Your task to perform on an android device: Do I have any events this weekend? Image 0: 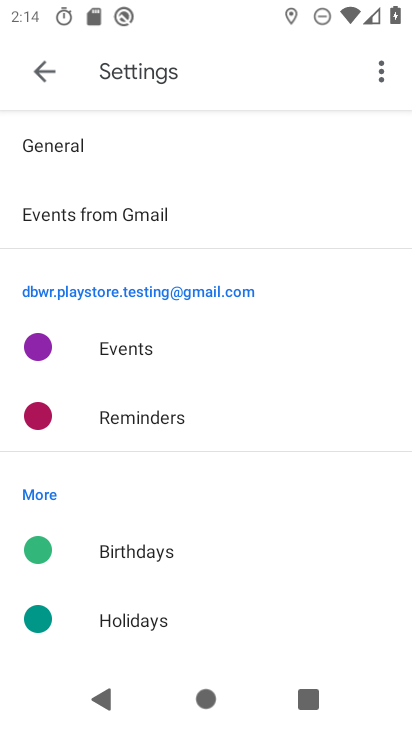
Step 0: press home button
Your task to perform on an android device: Do I have any events this weekend? Image 1: 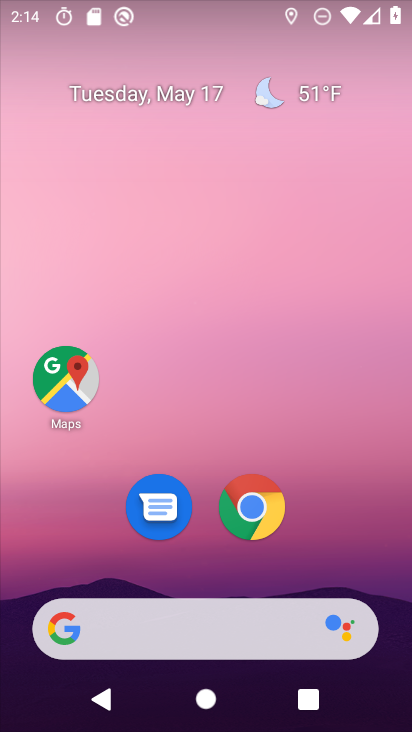
Step 1: drag from (208, 553) to (210, 133)
Your task to perform on an android device: Do I have any events this weekend? Image 2: 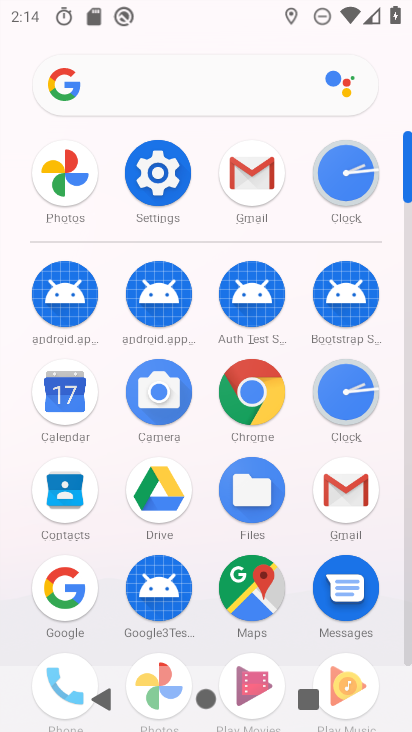
Step 2: click (63, 393)
Your task to perform on an android device: Do I have any events this weekend? Image 3: 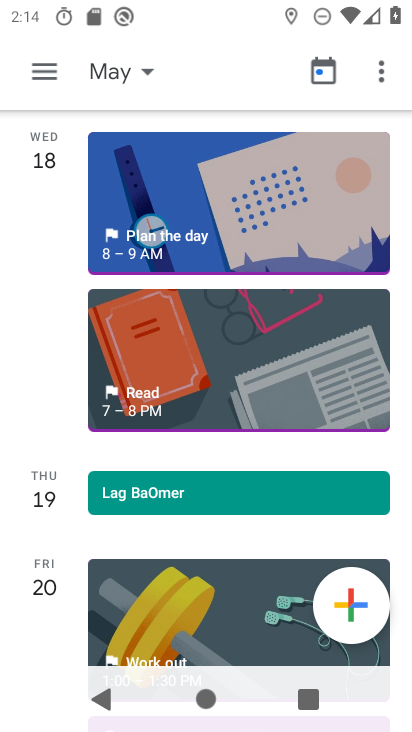
Step 3: click (136, 76)
Your task to perform on an android device: Do I have any events this weekend? Image 4: 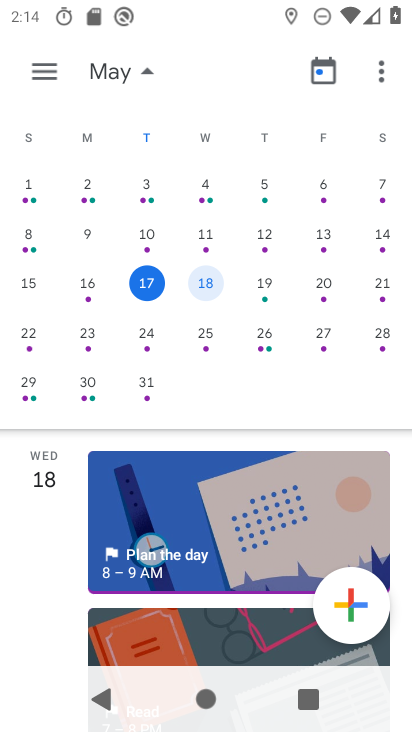
Step 4: click (322, 284)
Your task to perform on an android device: Do I have any events this weekend? Image 5: 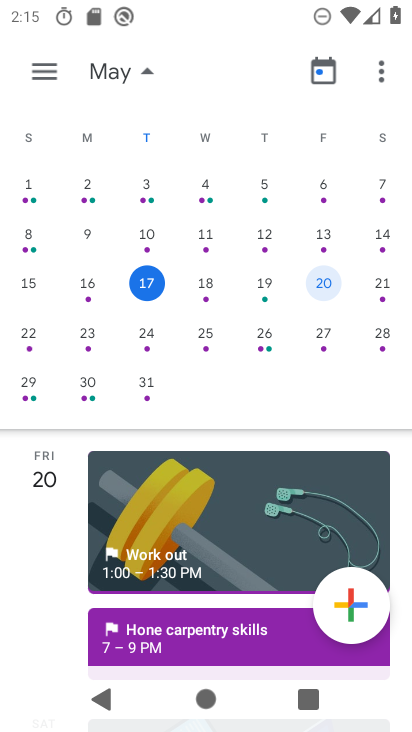
Step 5: task complete